Your task to perform on an android device: Search for pizza restaurants on Maps Image 0: 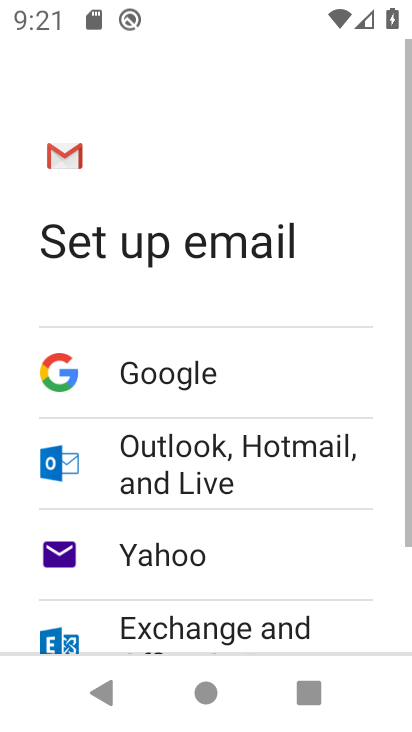
Step 0: press home button
Your task to perform on an android device: Search for pizza restaurants on Maps Image 1: 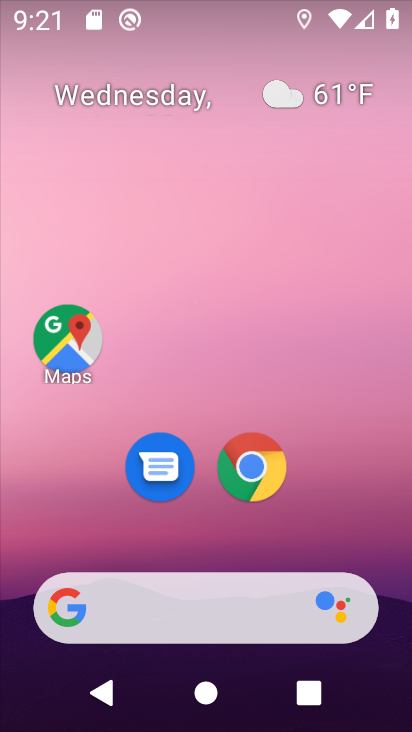
Step 1: drag from (371, 505) to (387, 150)
Your task to perform on an android device: Search for pizza restaurants on Maps Image 2: 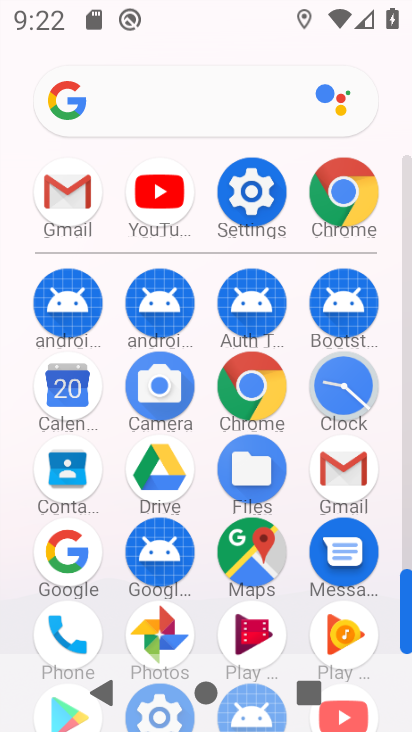
Step 2: click (274, 555)
Your task to perform on an android device: Search for pizza restaurants on Maps Image 3: 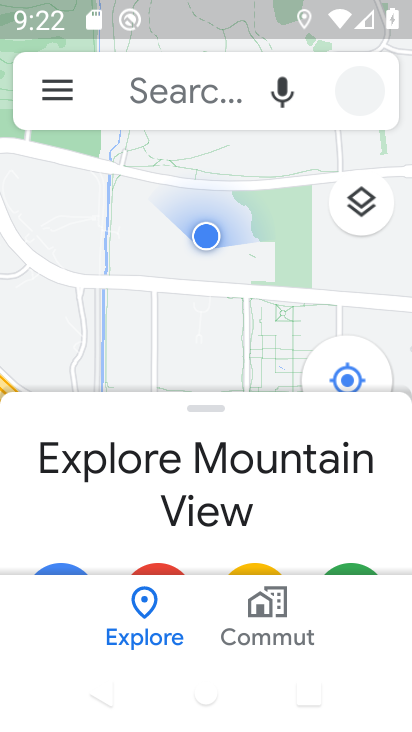
Step 3: click (198, 83)
Your task to perform on an android device: Search for pizza restaurants on Maps Image 4: 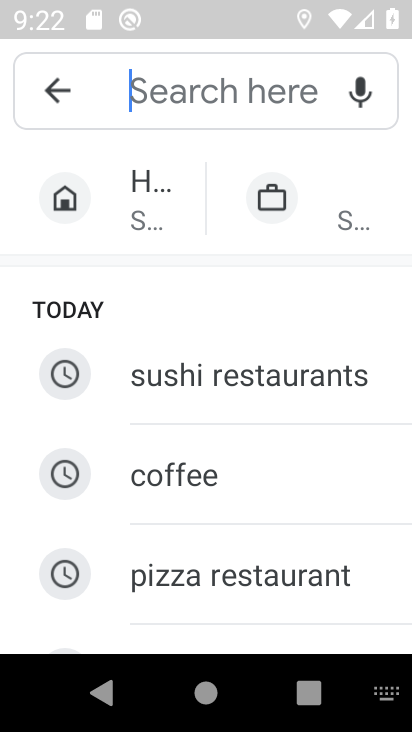
Step 4: click (266, 572)
Your task to perform on an android device: Search for pizza restaurants on Maps Image 5: 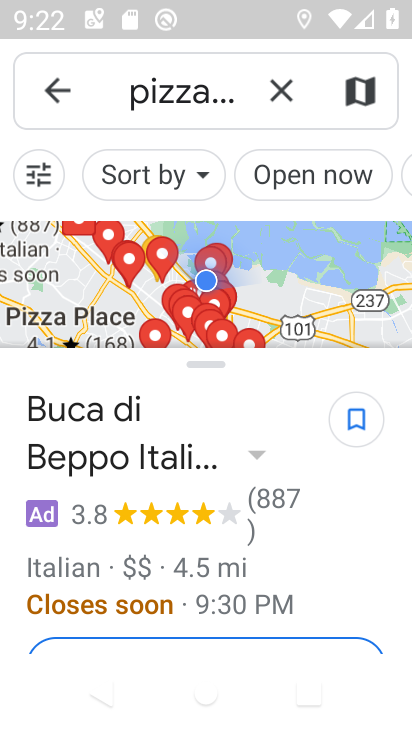
Step 5: task complete